Your task to perform on an android device: Go to network settings Image 0: 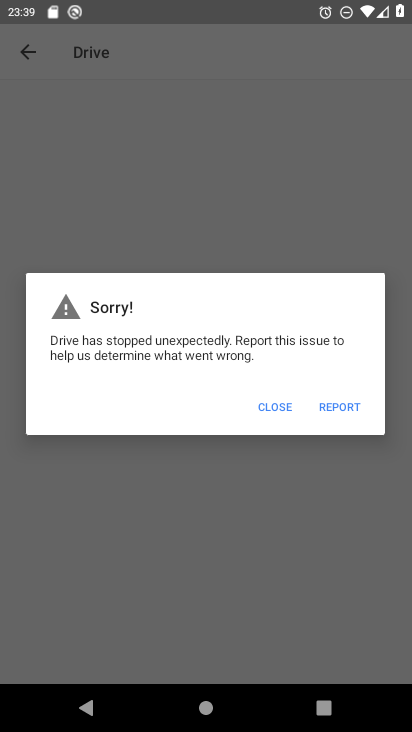
Step 0: press home button
Your task to perform on an android device: Go to network settings Image 1: 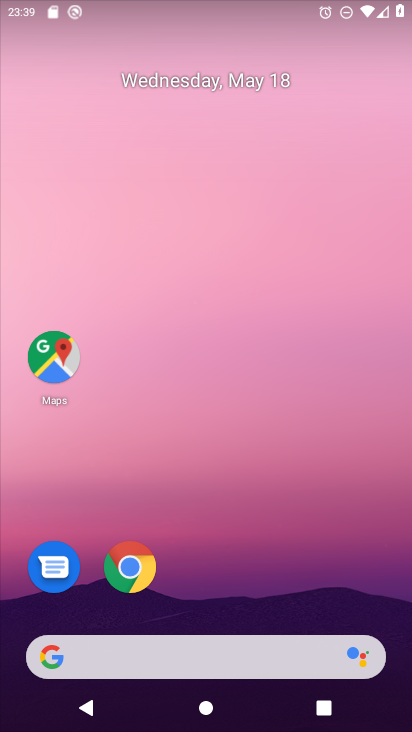
Step 1: drag from (262, 613) to (252, 204)
Your task to perform on an android device: Go to network settings Image 2: 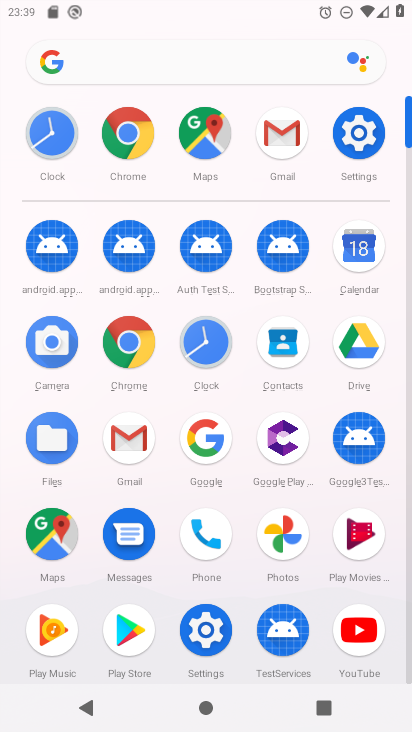
Step 2: click (212, 625)
Your task to perform on an android device: Go to network settings Image 3: 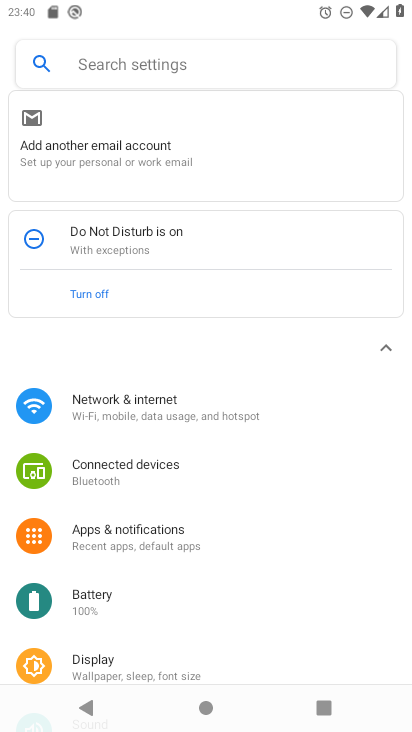
Step 3: click (176, 410)
Your task to perform on an android device: Go to network settings Image 4: 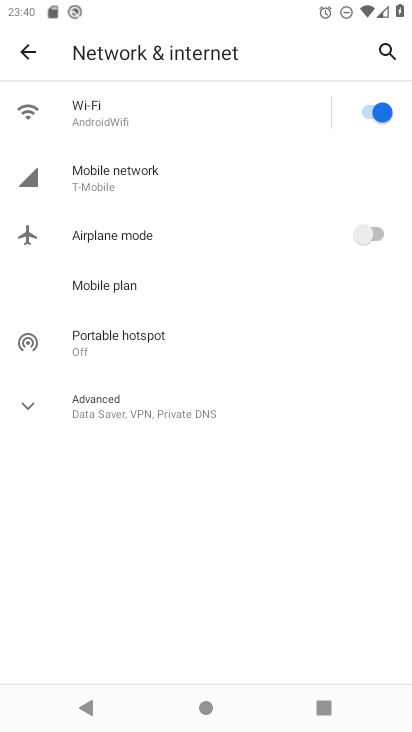
Step 4: task complete